Your task to perform on an android device: Open the stopwatch Image 0: 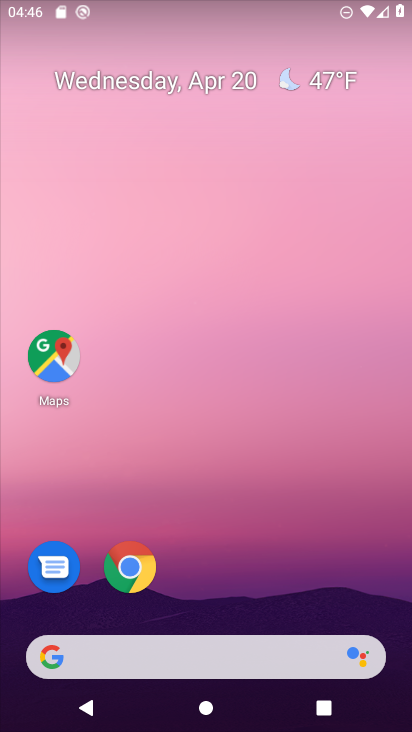
Step 0: drag from (240, 615) to (269, 0)
Your task to perform on an android device: Open the stopwatch Image 1: 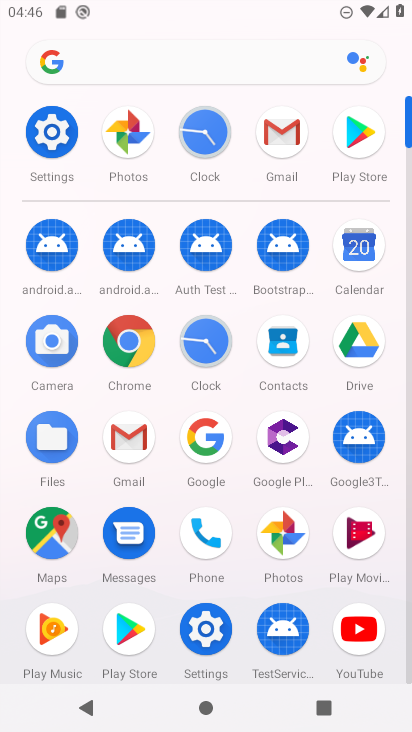
Step 1: click (197, 139)
Your task to perform on an android device: Open the stopwatch Image 2: 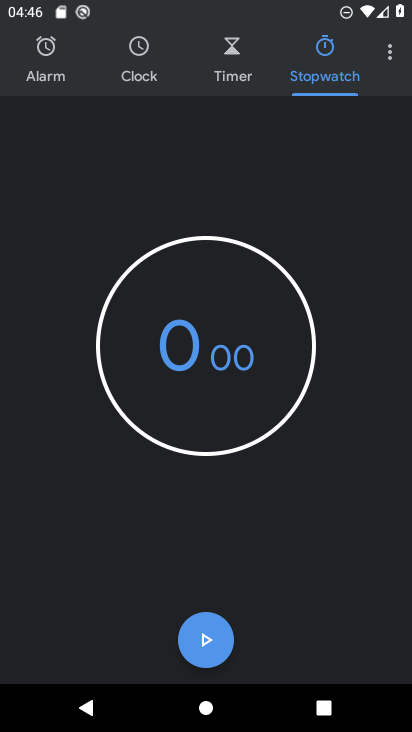
Step 2: task complete